Your task to perform on an android device: star an email in the gmail app Image 0: 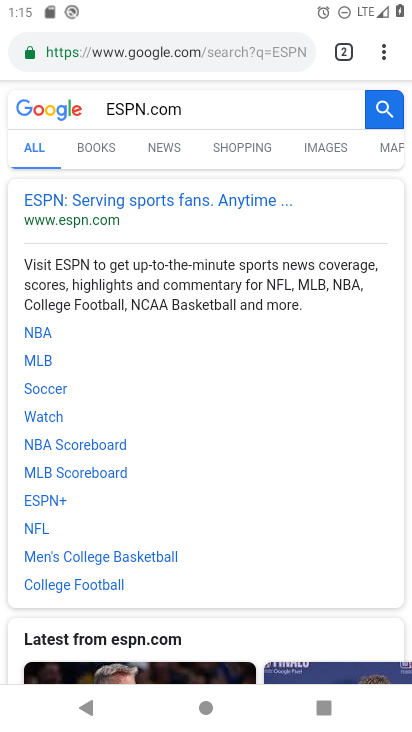
Step 0: press back button
Your task to perform on an android device: star an email in the gmail app Image 1: 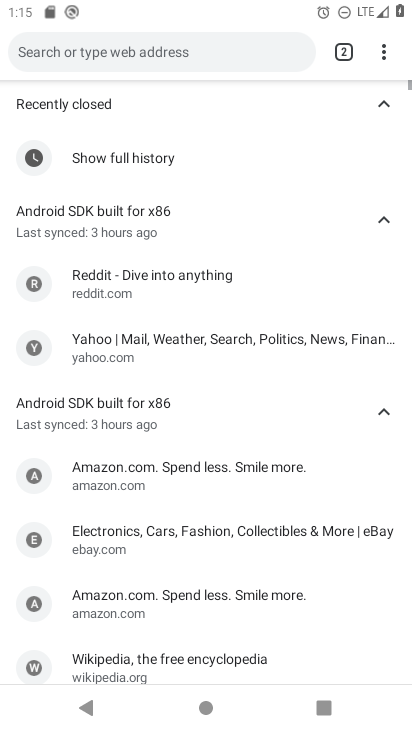
Step 1: press home button
Your task to perform on an android device: star an email in the gmail app Image 2: 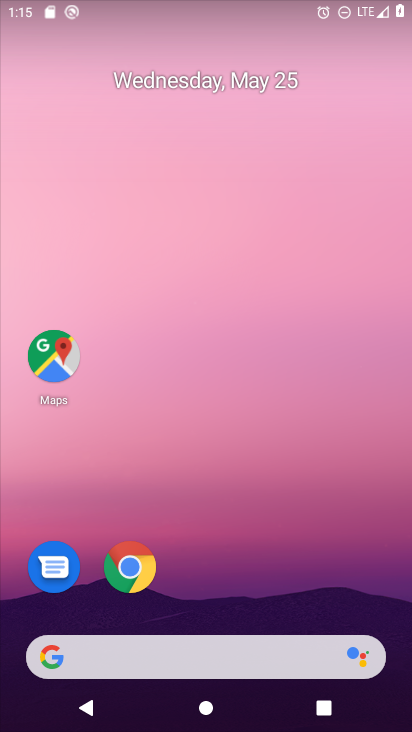
Step 2: drag from (398, 653) to (366, 272)
Your task to perform on an android device: star an email in the gmail app Image 3: 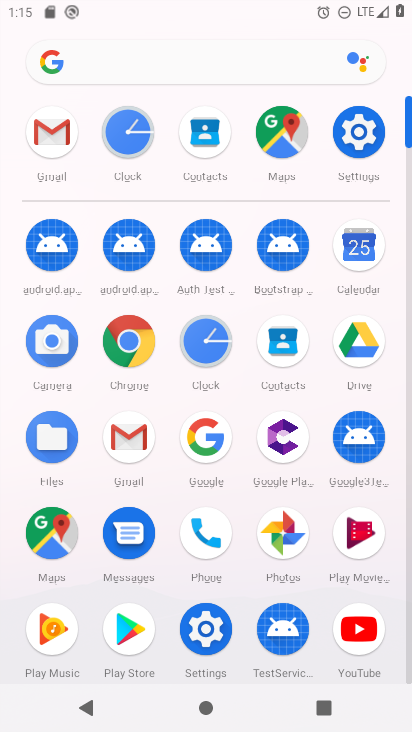
Step 3: click (116, 429)
Your task to perform on an android device: star an email in the gmail app Image 4: 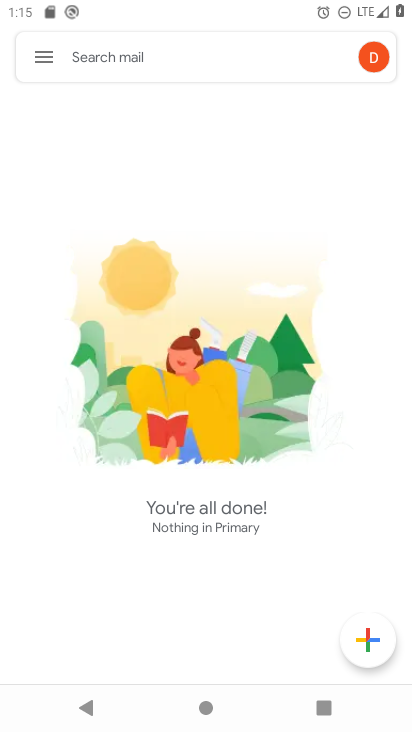
Step 4: click (43, 57)
Your task to perform on an android device: star an email in the gmail app Image 5: 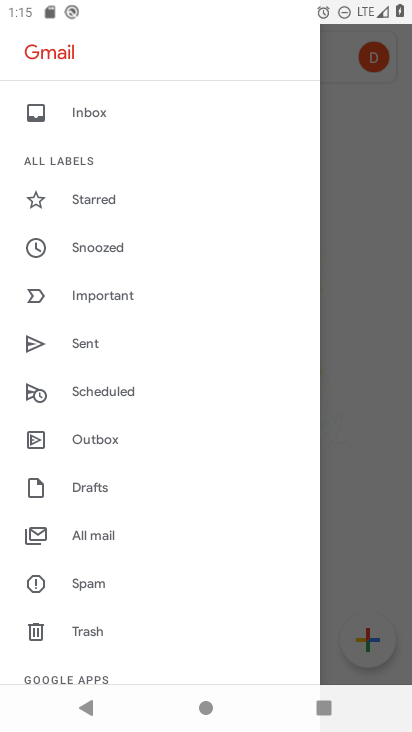
Step 5: click (81, 107)
Your task to perform on an android device: star an email in the gmail app Image 6: 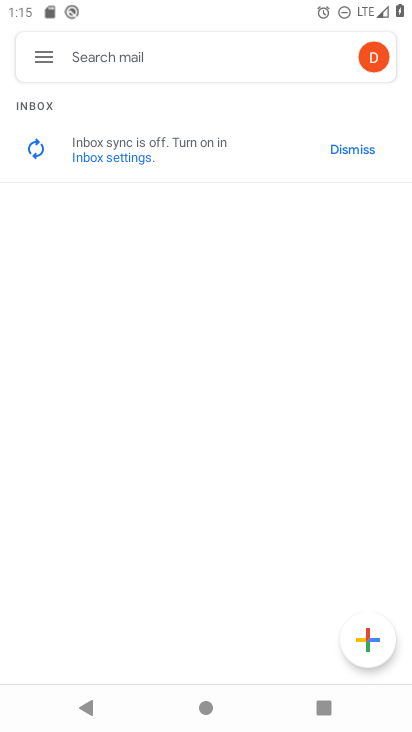
Step 6: task complete